Your task to perform on an android device: toggle wifi Image 0: 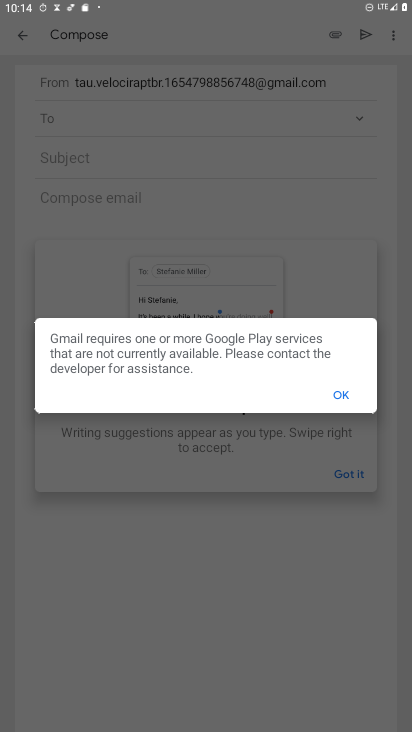
Step 0: press home button
Your task to perform on an android device: toggle wifi Image 1: 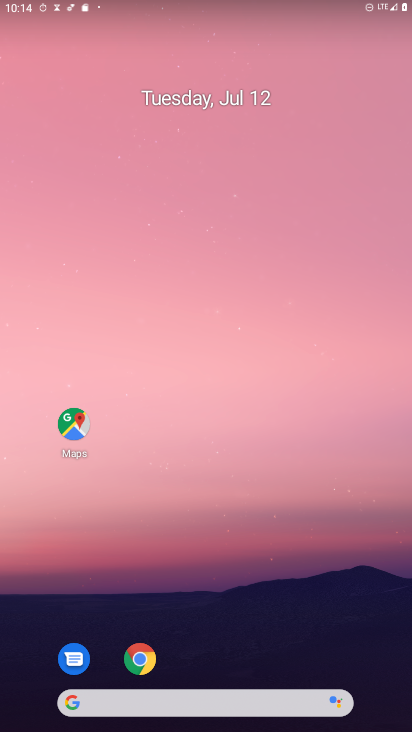
Step 1: drag from (212, 694) to (279, 237)
Your task to perform on an android device: toggle wifi Image 2: 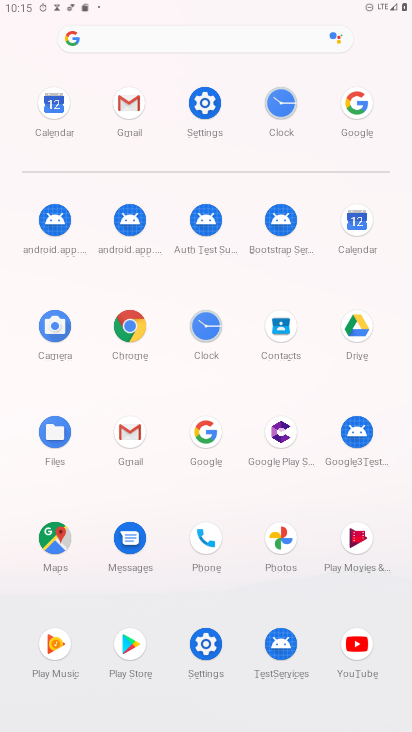
Step 2: click (206, 107)
Your task to perform on an android device: toggle wifi Image 3: 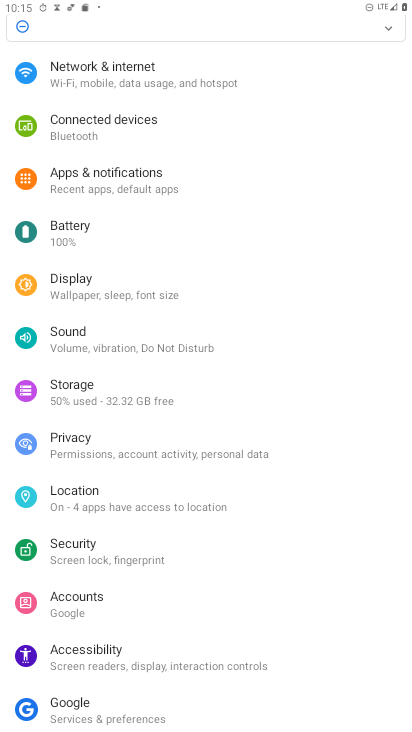
Step 3: click (189, 83)
Your task to perform on an android device: toggle wifi Image 4: 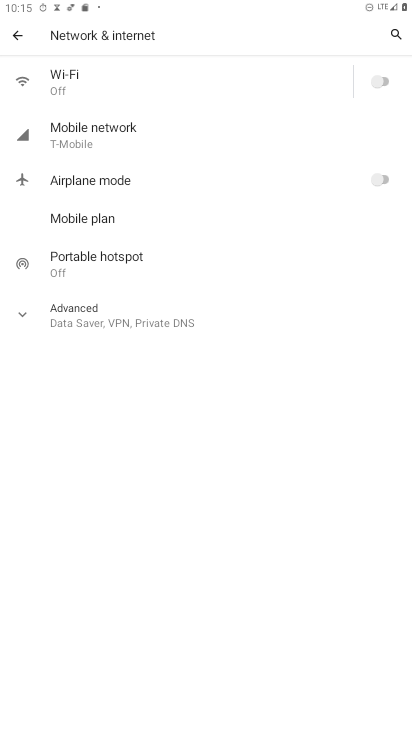
Step 4: click (380, 84)
Your task to perform on an android device: toggle wifi Image 5: 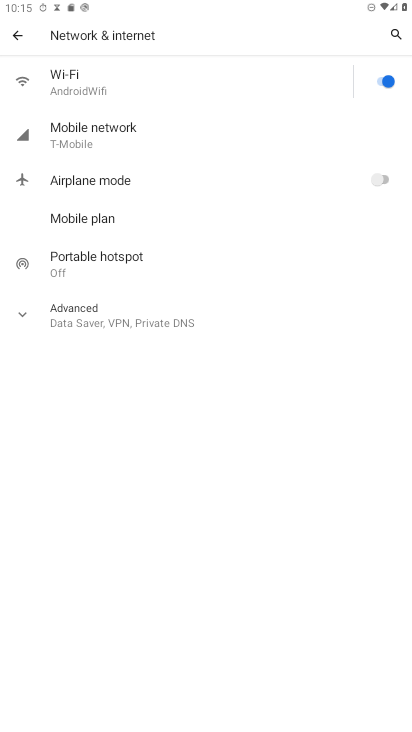
Step 5: task complete